Your task to perform on an android device: turn off notifications settings in the gmail app Image 0: 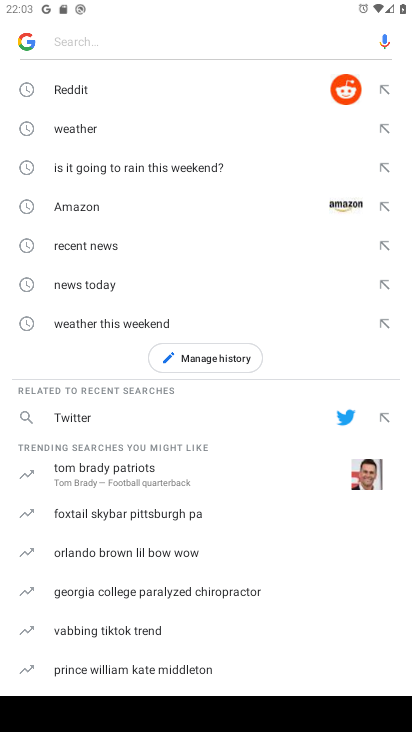
Step 0: press home button
Your task to perform on an android device: turn off notifications settings in the gmail app Image 1: 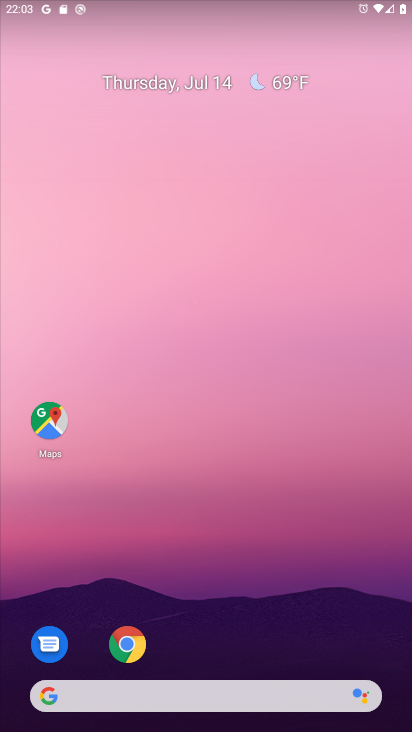
Step 1: drag from (219, 407) to (215, 243)
Your task to perform on an android device: turn off notifications settings in the gmail app Image 2: 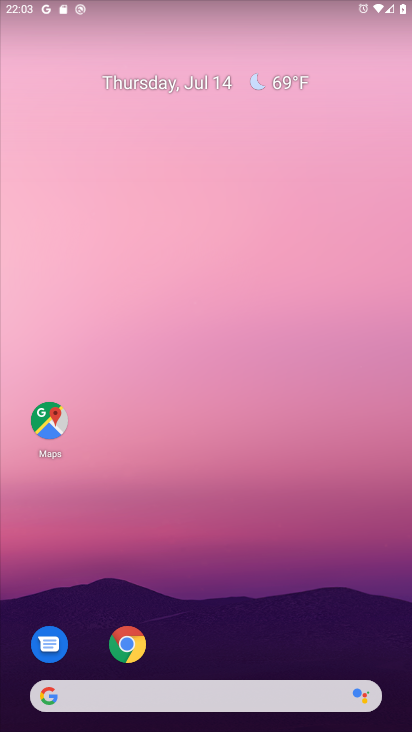
Step 2: drag from (196, 656) to (238, 66)
Your task to perform on an android device: turn off notifications settings in the gmail app Image 3: 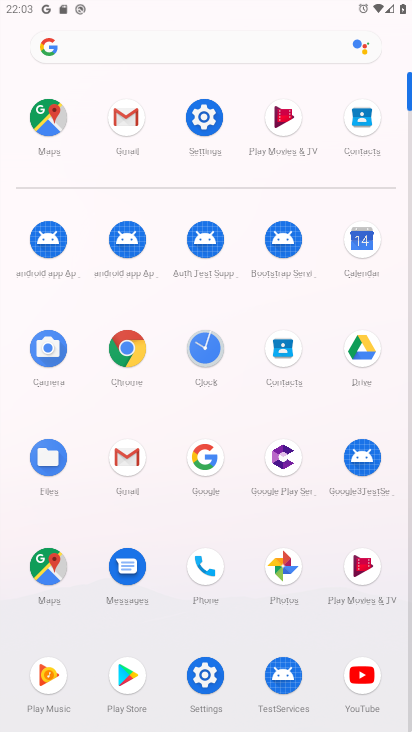
Step 3: click (194, 127)
Your task to perform on an android device: turn off notifications settings in the gmail app Image 4: 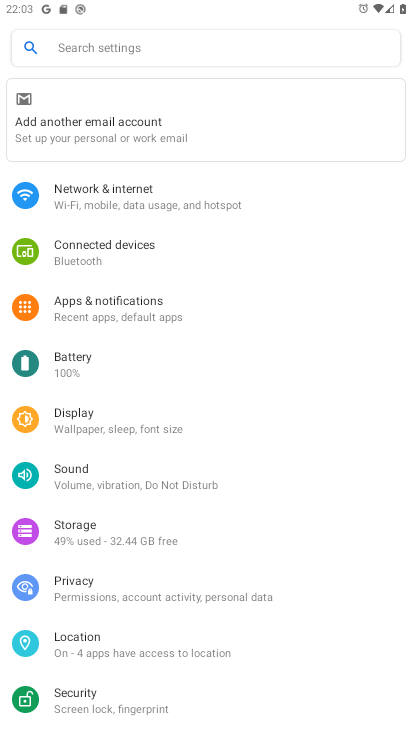
Step 4: click (80, 299)
Your task to perform on an android device: turn off notifications settings in the gmail app Image 5: 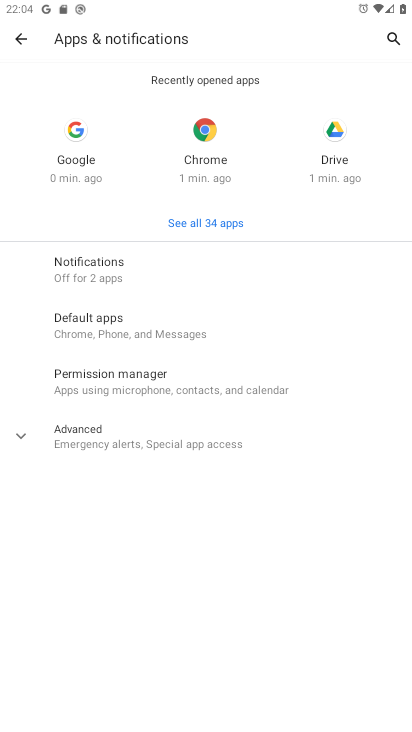
Step 5: click (140, 288)
Your task to perform on an android device: turn off notifications settings in the gmail app Image 6: 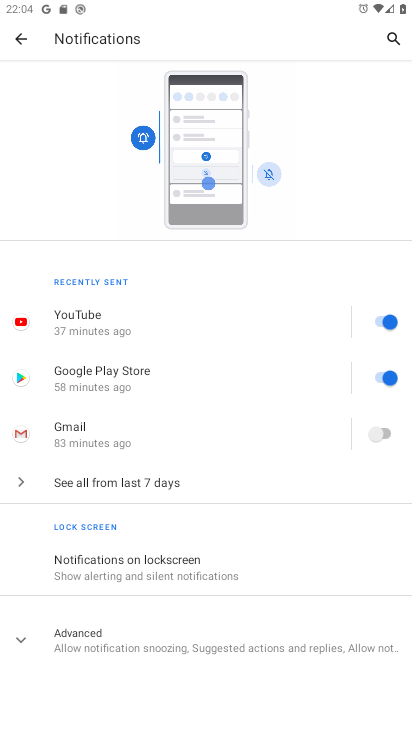
Step 6: task complete